Your task to perform on an android device: Open Google Image 0: 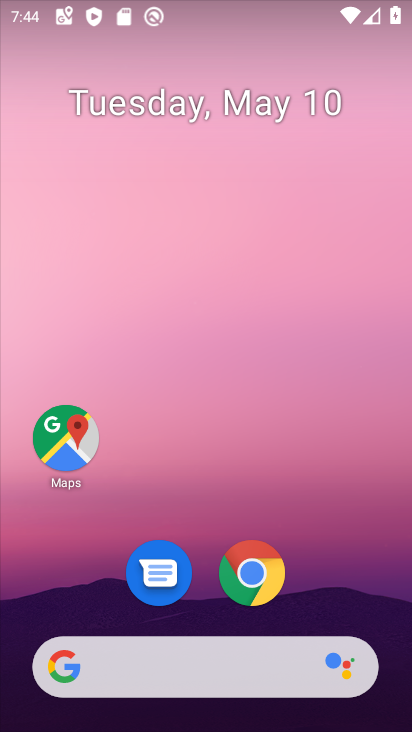
Step 0: drag from (350, 618) to (331, 168)
Your task to perform on an android device: Open Google Image 1: 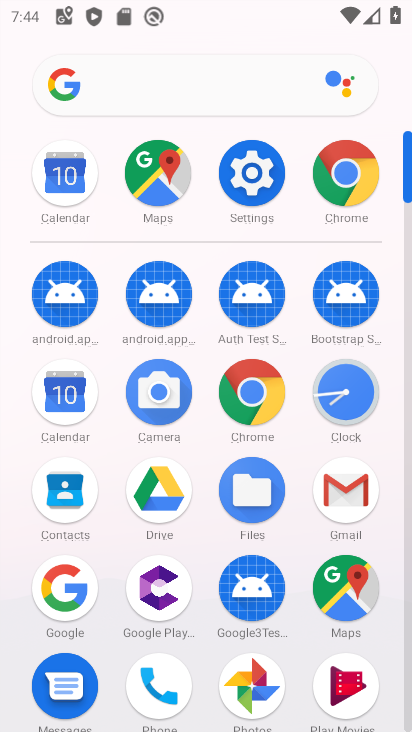
Step 1: click (73, 594)
Your task to perform on an android device: Open Google Image 2: 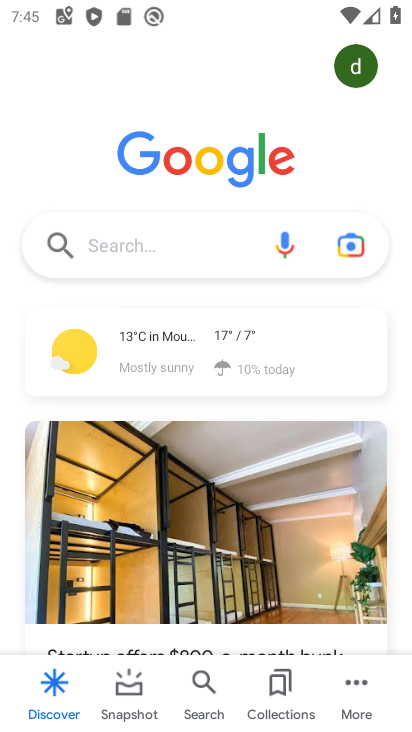
Step 2: task complete